Your task to perform on an android device: Go to Google maps Image 0: 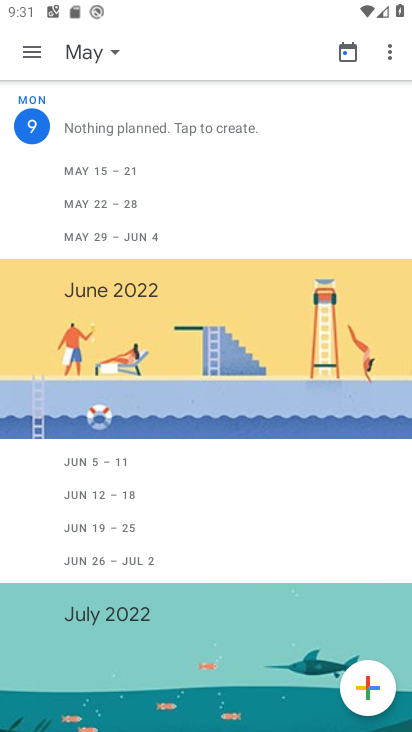
Step 0: drag from (248, 718) to (285, 348)
Your task to perform on an android device: Go to Google maps Image 1: 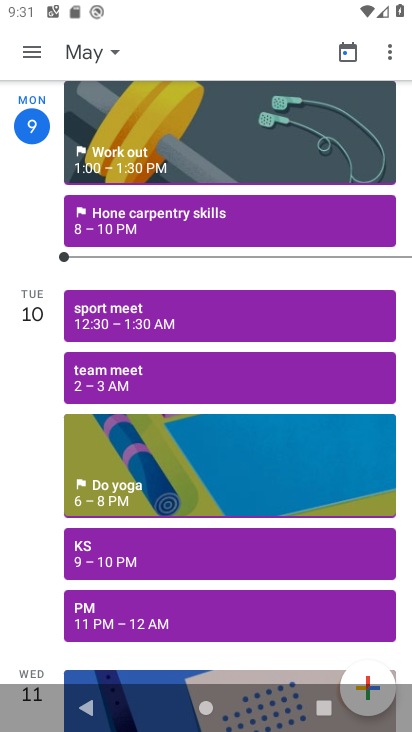
Step 1: press home button
Your task to perform on an android device: Go to Google maps Image 2: 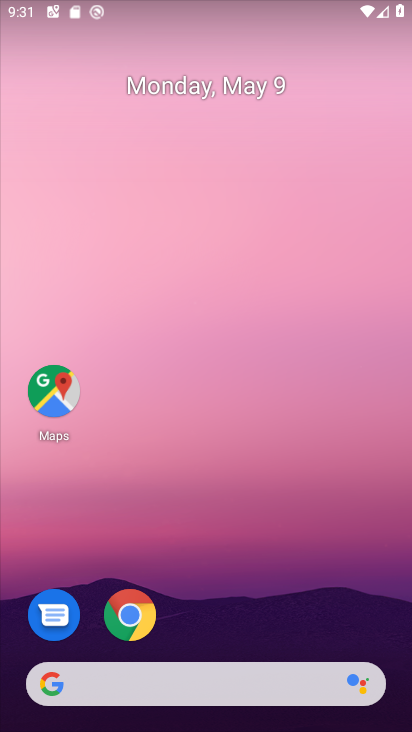
Step 2: drag from (278, 723) to (265, 115)
Your task to perform on an android device: Go to Google maps Image 3: 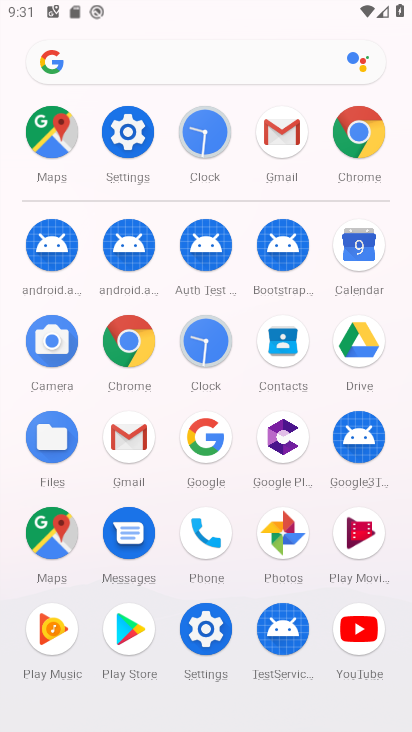
Step 3: click (55, 134)
Your task to perform on an android device: Go to Google maps Image 4: 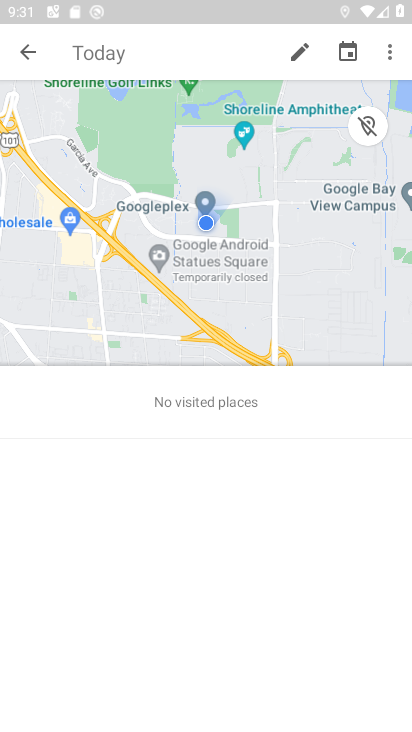
Step 4: click (13, 59)
Your task to perform on an android device: Go to Google maps Image 5: 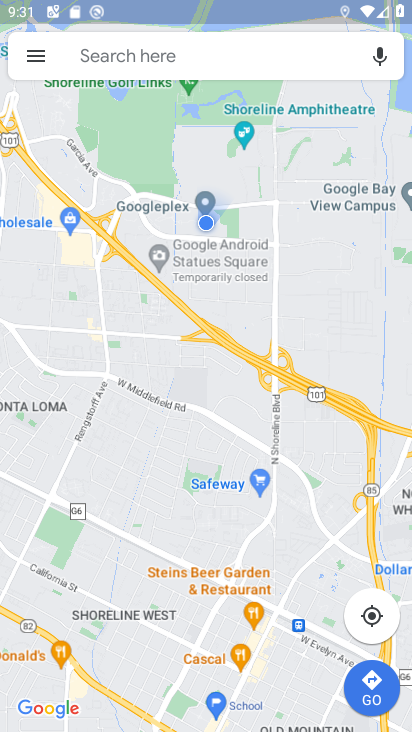
Step 5: task complete